Your task to perform on an android device: move a message to another label in the gmail app Image 0: 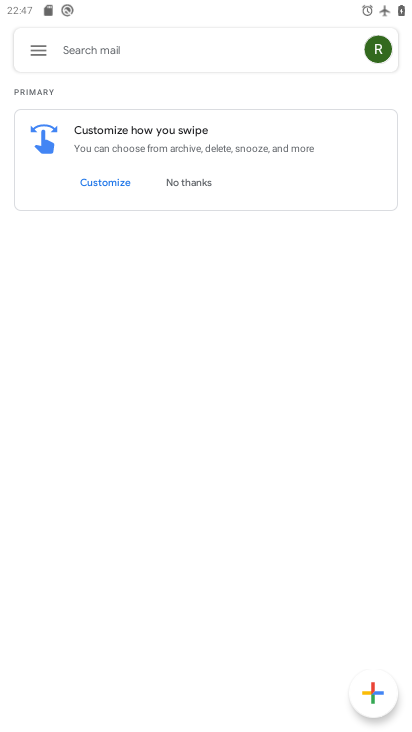
Step 0: press home button
Your task to perform on an android device: move a message to another label in the gmail app Image 1: 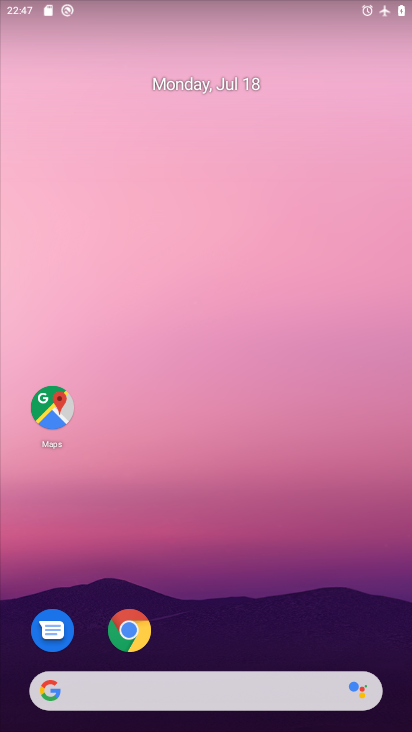
Step 1: drag from (176, 661) to (237, 329)
Your task to perform on an android device: move a message to another label in the gmail app Image 2: 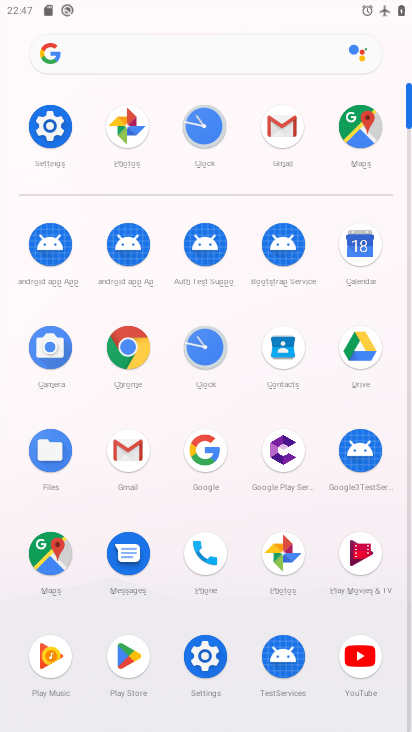
Step 2: click (279, 117)
Your task to perform on an android device: move a message to another label in the gmail app Image 3: 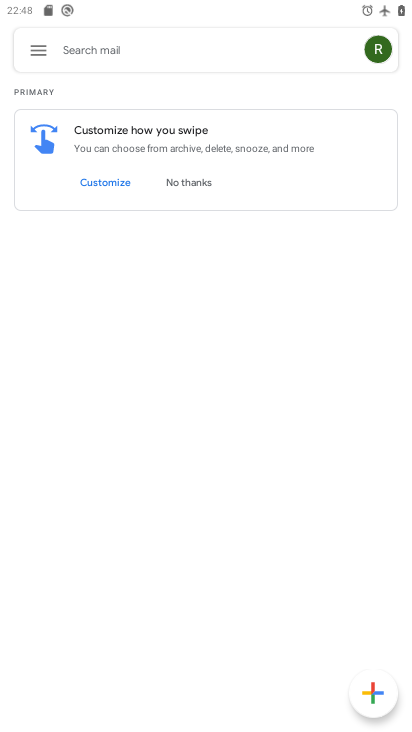
Step 3: click (41, 39)
Your task to perform on an android device: move a message to another label in the gmail app Image 4: 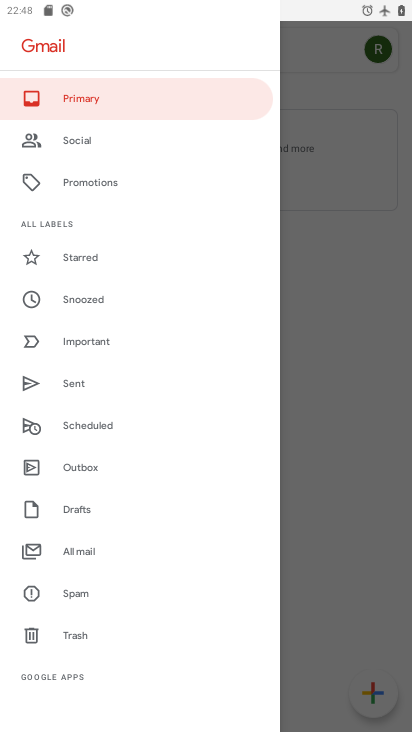
Step 4: click (91, 529)
Your task to perform on an android device: move a message to another label in the gmail app Image 5: 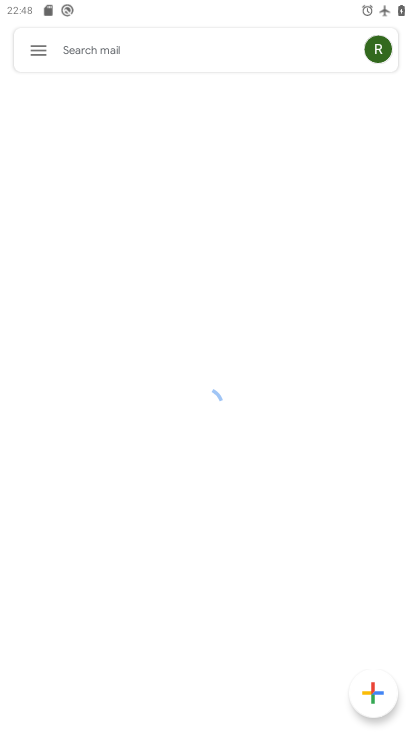
Step 5: click (31, 38)
Your task to perform on an android device: move a message to another label in the gmail app Image 6: 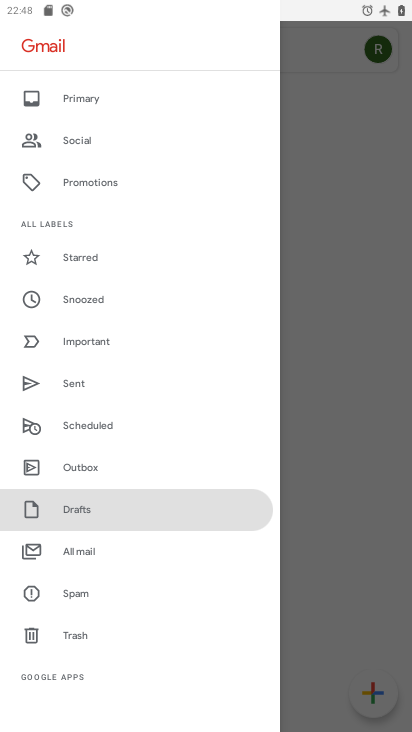
Step 6: click (79, 560)
Your task to perform on an android device: move a message to another label in the gmail app Image 7: 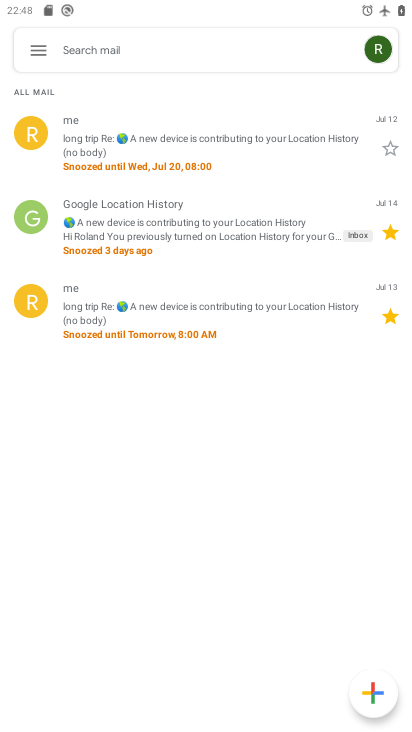
Step 7: click (174, 149)
Your task to perform on an android device: move a message to another label in the gmail app Image 8: 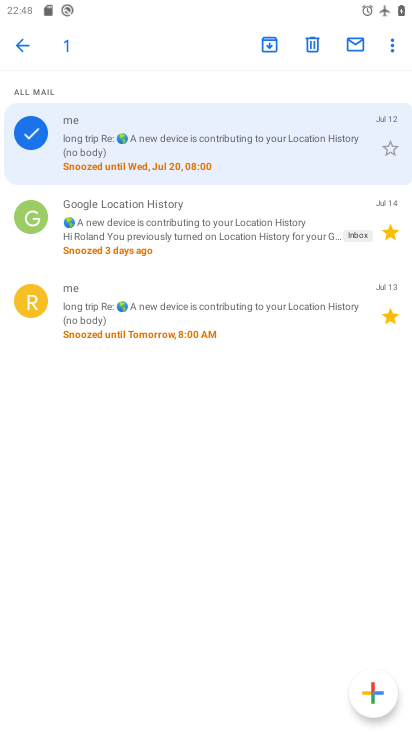
Step 8: click (395, 43)
Your task to perform on an android device: move a message to another label in the gmail app Image 9: 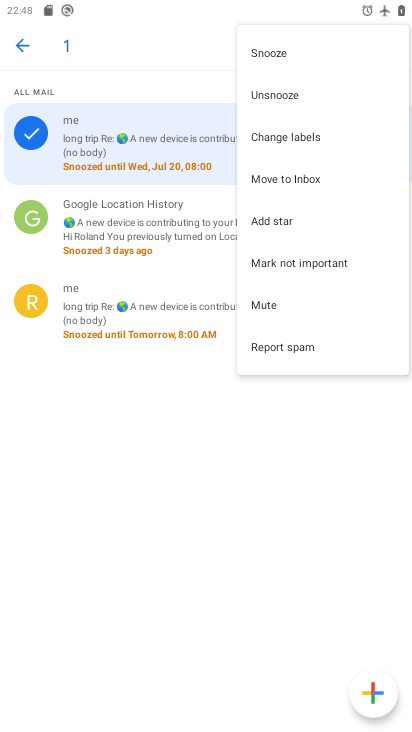
Step 9: click (309, 179)
Your task to perform on an android device: move a message to another label in the gmail app Image 10: 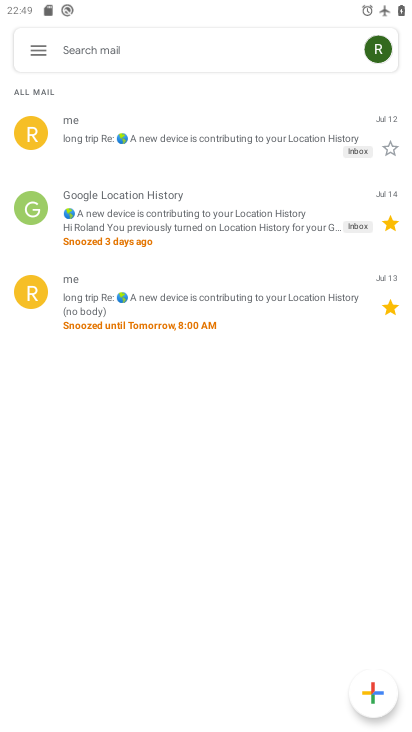
Step 10: task complete